Your task to perform on an android device: Clear the cart on costco.com. Add bose soundsport free to the cart on costco.com Image 0: 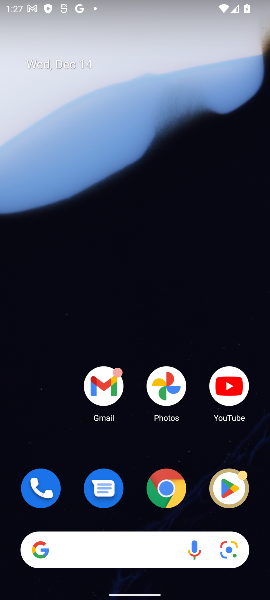
Step 0: drag from (113, 545) to (139, 206)
Your task to perform on an android device: Clear the cart on costco.com. Add bose soundsport free to the cart on costco.com Image 1: 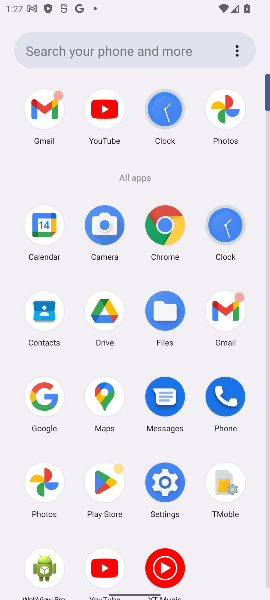
Step 1: click (41, 391)
Your task to perform on an android device: Clear the cart on costco.com. Add bose soundsport free to the cart on costco.com Image 2: 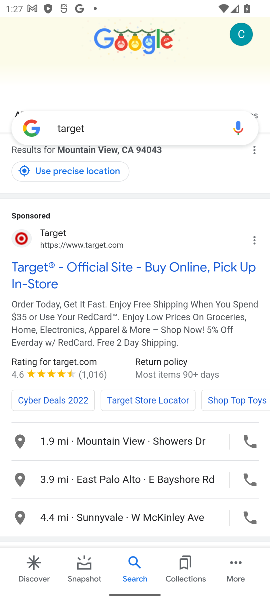
Step 2: click (88, 130)
Your task to perform on an android device: Clear the cart on costco.com. Add bose soundsport free to the cart on costco.com Image 3: 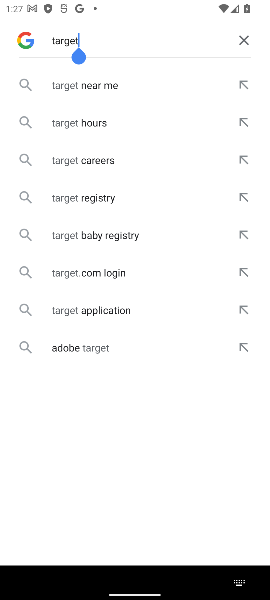
Step 3: click (245, 45)
Your task to perform on an android device: Clear the cart on costco.com. Add bose soundsport free to the cart on costco.com Image 4: 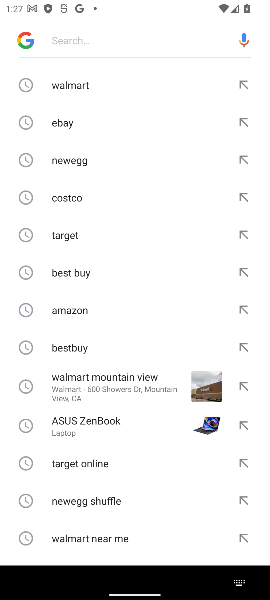
Step 4: click (62, 198)
Your task to perform on an android device: Clear the cart on costco.com. Add bose soundsport free to the cart on costco.com Image 5: 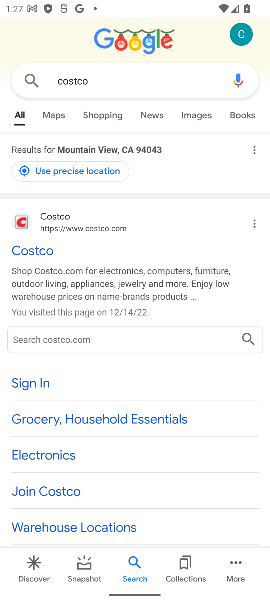
Step 5: click (43, 251)
Your task to perform on an android device: Clear the cart on costco.com. Add bose soundsport free to the cart on costco.com Image 6: 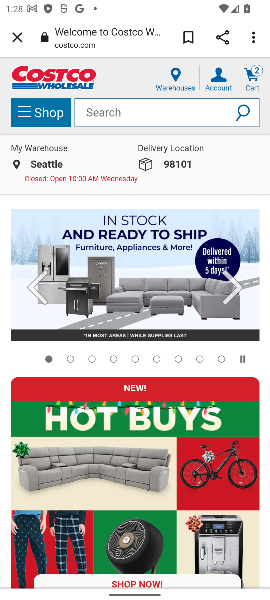
Step 6: click (250, 72)
Your task to perform on an android device: Clear the cart on costco.com. Add bose soundsport free to the cart on costco.com Image 7: 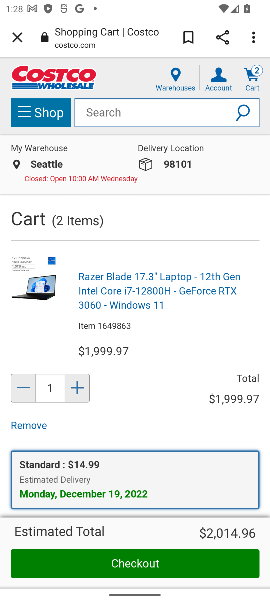
Step 7: click (28, 423)
Your task to perform on an android device: Clear the cart on costco.com. Add bose soundsport free to the cart on costco.com Image 8: 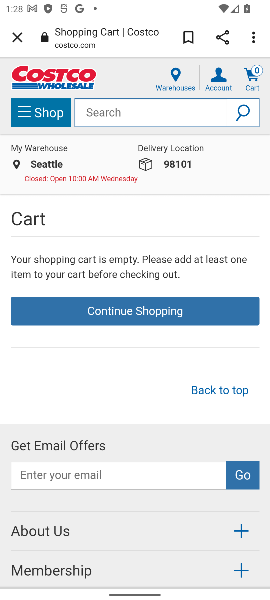
Step 8: click (91, 108)
Your task to perform on an android device: Clear the cart on costco.com. Add bose soundsport free to the cart on costco.com Image 9: 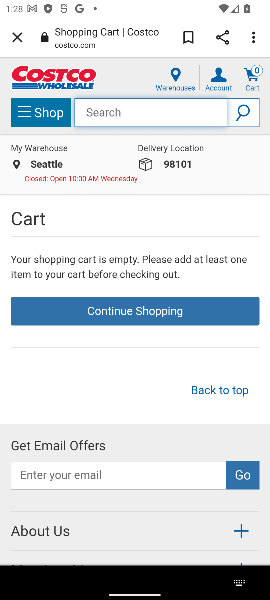
Step 9: type "bose soundsport free"
Your task to perform on an android device: Clear the cart on costco.com. Add bose soundsport free to the cart on costco.com Image 10: 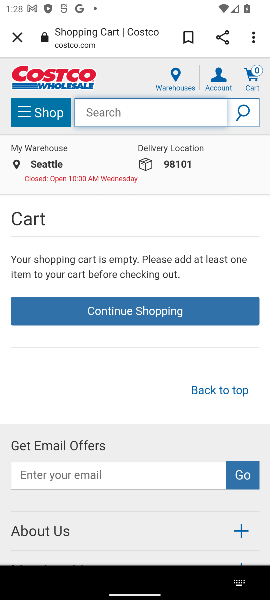
Step 10: click (240, 111)
Your task to perform on an android device: Clear the cart on costco.com. Add bose soundsport free to the cart on costco.com Image 11: 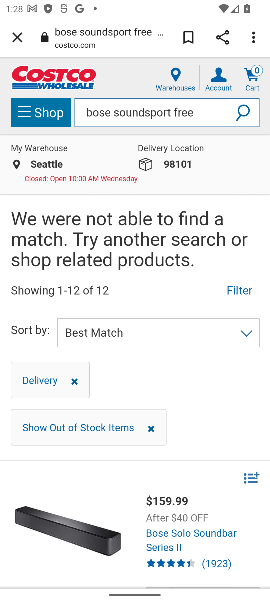
Step 11: drag from (153, 544) to (184, 344)
Your task to perform on an android device: Clear the cart on costco.com. Add bose soundsport free to the cart on costco.com Image 12: 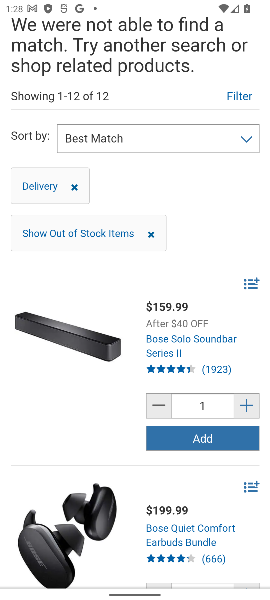
Step 12: click (203, 439)
Your task to perform on an android device: Clear the cart on costco.com. Add bose soundsport free to the cart on costco.com Image 13: 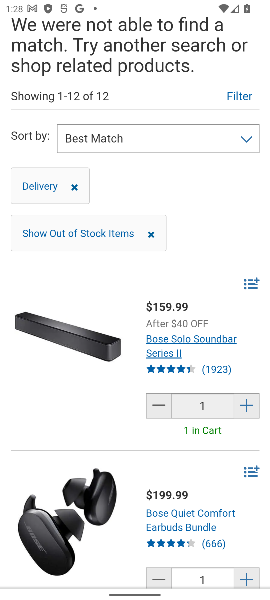
Step 13: drag from (157, 135) to (194, 418)
Your task to perform on an android device: Clear the cart on costco.com. Add bose soundsport free to the cart on costco.com Image 14: 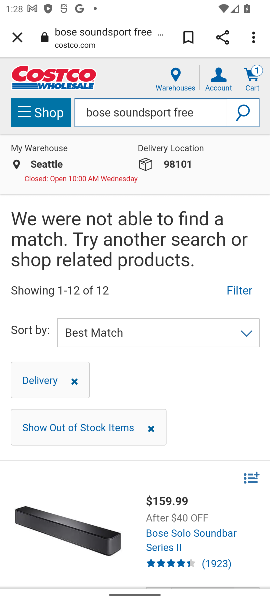
Step 14: click (251, 73)
Your task to perform on an android device: Clear the cart on costco.com. Add bose soundsport free to the cart on costco.com Image 15: 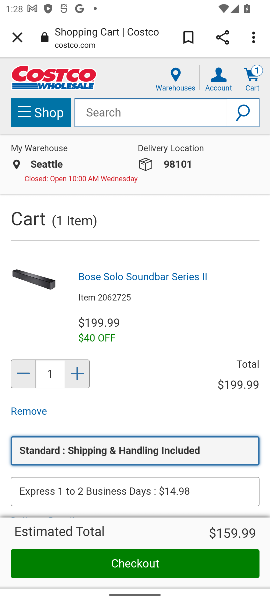
Step 15: click (158, 561)
Your task to perform on an android device: Clear the cart on costco.com. Add bose soundsport free to the cart on costco.com Image 16: 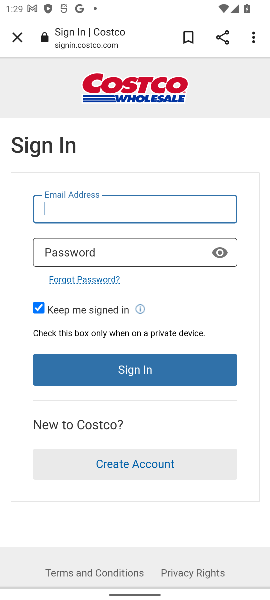
Step 16: task complete